Your task to perform on an android device: change keyboard looks Image 0: 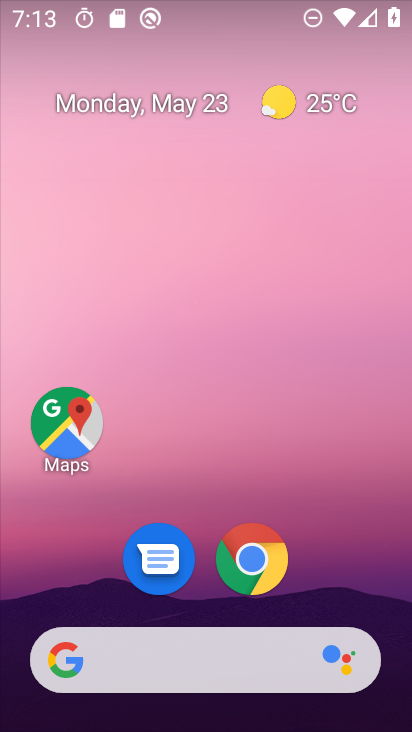
Step 0: drag from (383, 654) to (335, 58)
Your task to perform on an android device: change keyboard looks Image 1: 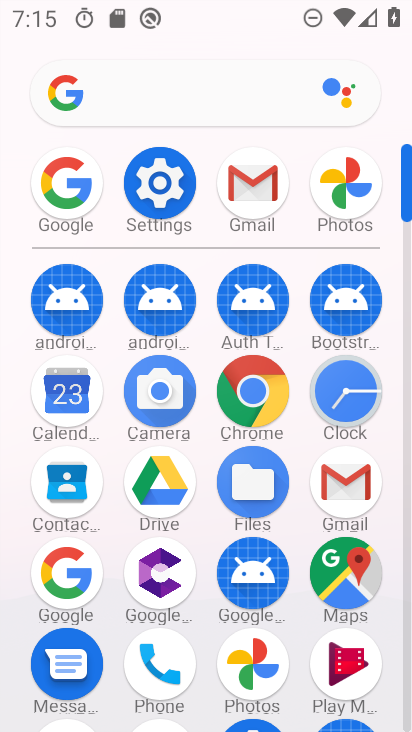
Step 1: click (177, 210)
Your task to perform on an android device: change keyboard looks Image 2: 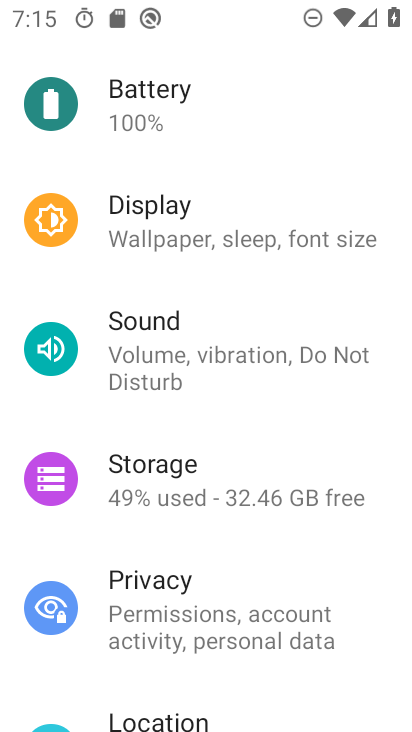
Step 2: drag from (205, 628) to (224, 15)
Your task to perform on an android device: change keyboard looks Image 3: 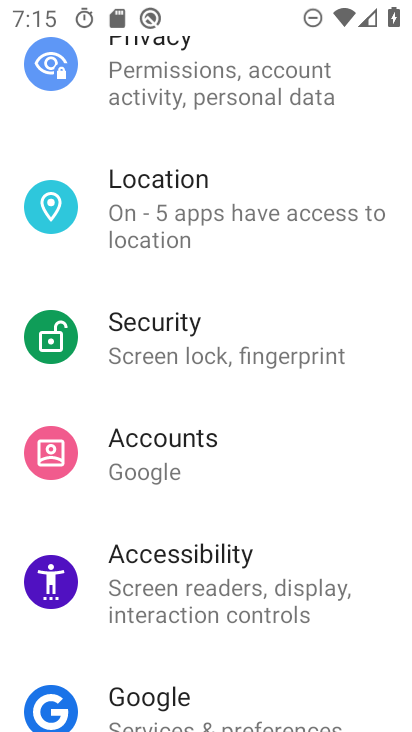
Step 3: drag from (165, 645) to (208, 7)
Your task to perform on an android device: change keyboard looks Image 4: 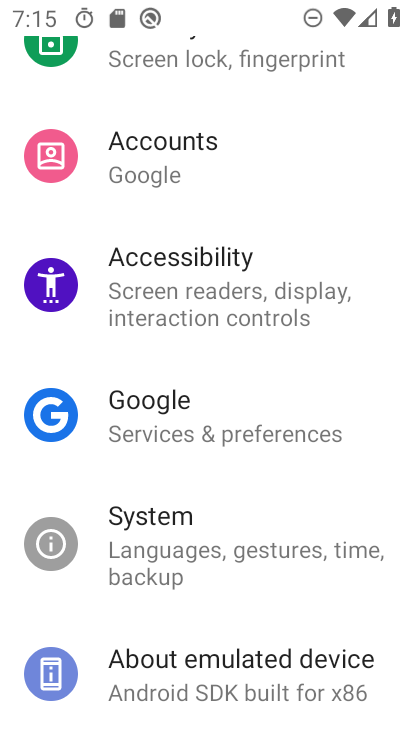
Step 4: click (238, 557)
Your task to perform on an android device: change keyboard looks Image 5: 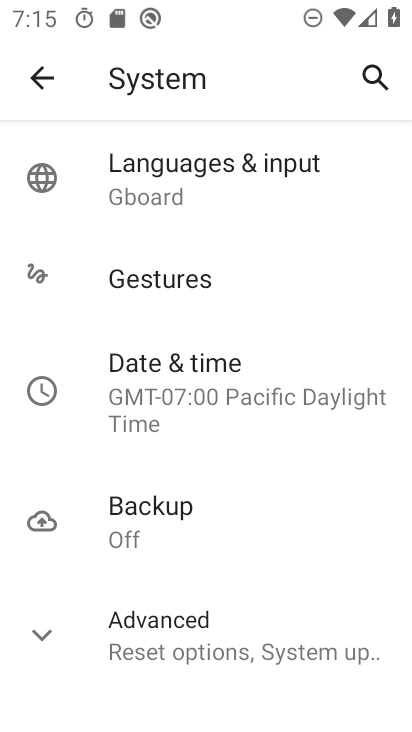
Step 5: click (191, 181)
Your task to perform on an android device: change keyboard looks Image 6: 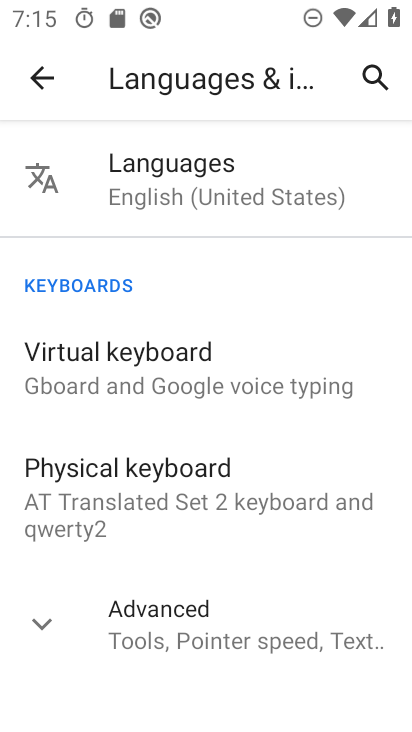
Step 6: click (161, 351)
Your task to perform on an android device: change keyboard looks Image 7: 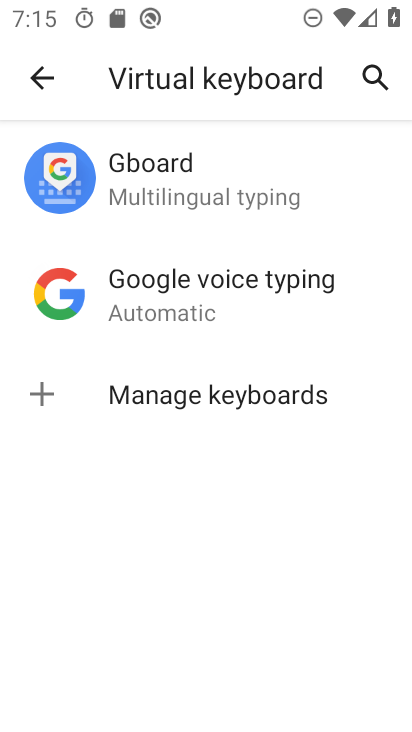
Step 7: click (158, 184)
Your task to perform on an android device: change keyboard looks Image 8: 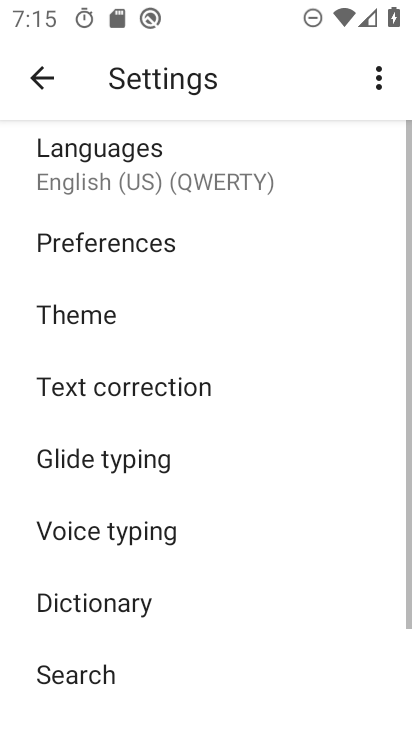
Step 8: click (99, 312)
Your task to perform on an android device: change keyboard looks Image 9: 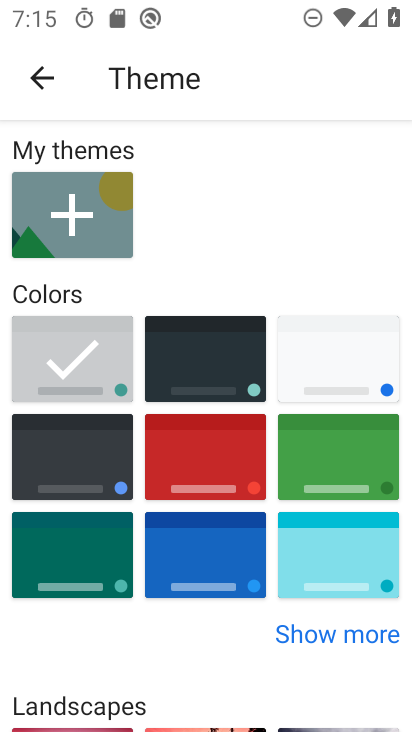
Step 9: click (212, 340)
Your task to perform on an android device: change keyboard looks Image 10: 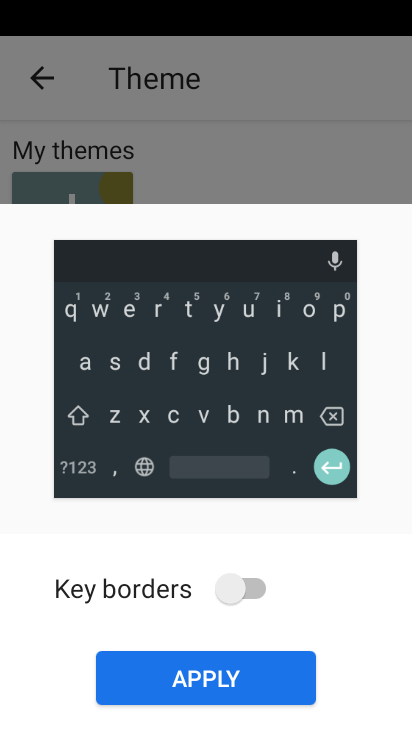
Step 10: click (224, 669)
Your task to perform on an android device: change keyboard looks Image 11: 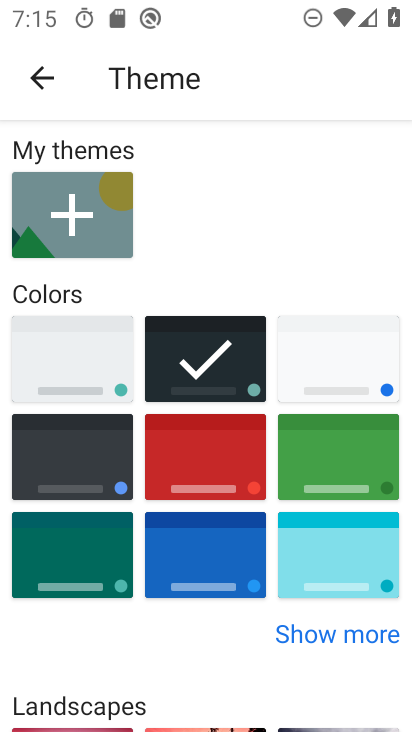
Step 11: task complete